Your task to perform on an android device: Is it going to rain tomorrow? Image 0: 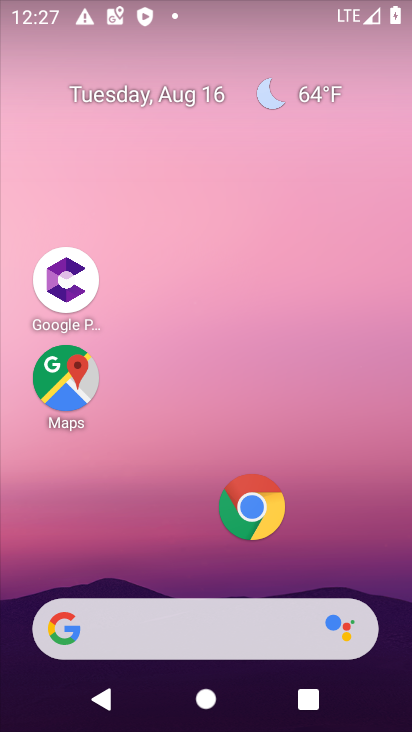
Step 0: click (187, 637)
Your task to perform on an android device: Is it going to rain tomorrow? Image 1: 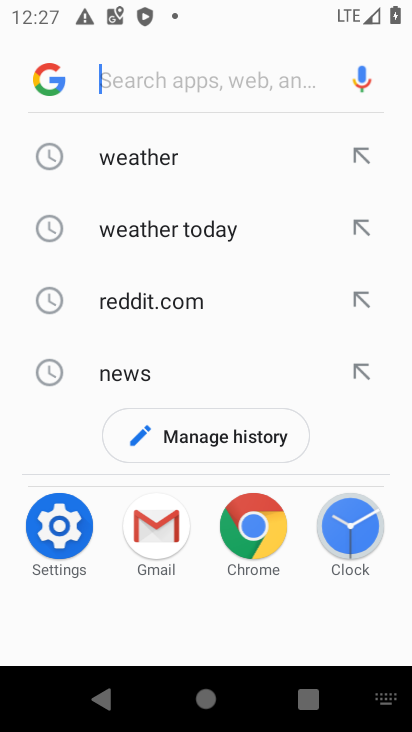
Step 1: click (146, 150)
Your task to perform on an android device: Is it going to rain tomorrow? Image 2: 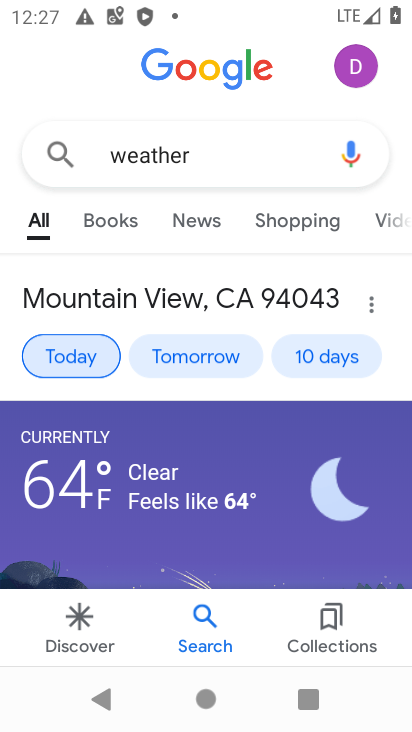
Step 2: click (193, 353)
Your task to perform on an android device: Is it going to rain tomorrow? Image 3: 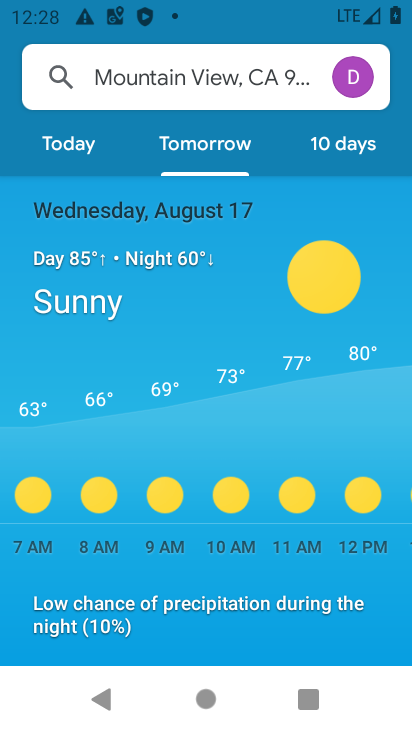
Step 3: task complete